Your task to perform on an android device: toggle translation in the chrome app Image 0: 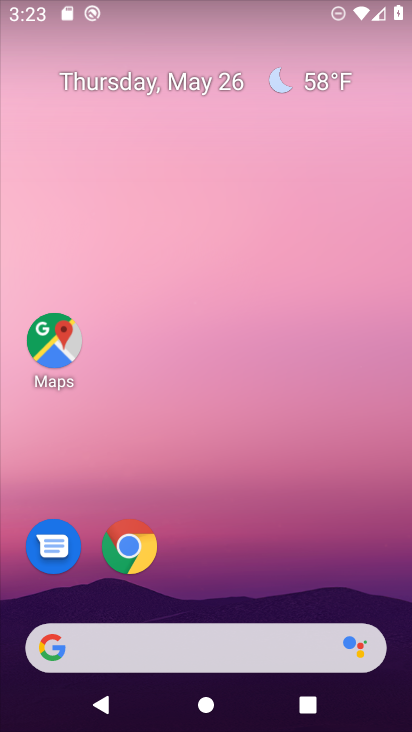
Step 0: press home button
Your task to perform on an android device: toggle translation in the chrome app Image 1: 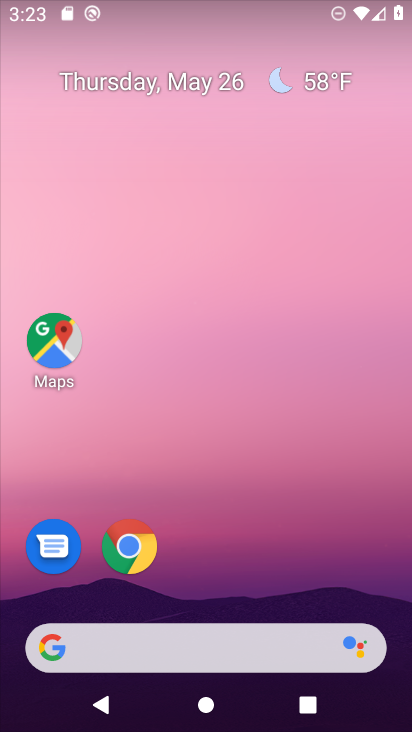
Step 1: click (129, 540)
Your task to perform on an android device: toggle translation in the chrome app Image 2: 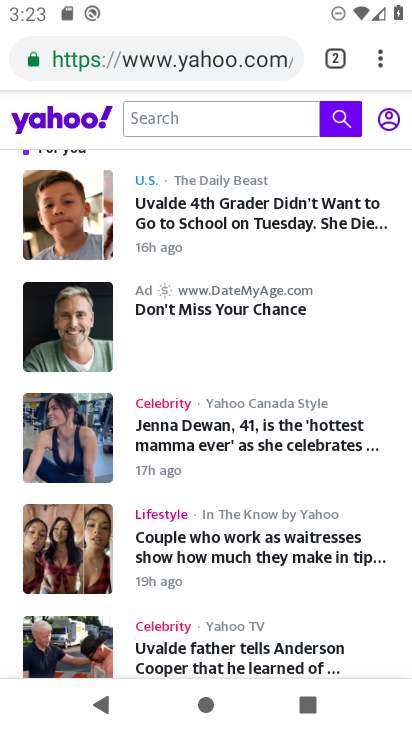
Step 2: click (385, 60)
Your task to perform on an android device: toggle translation in the chrome app Image 3: 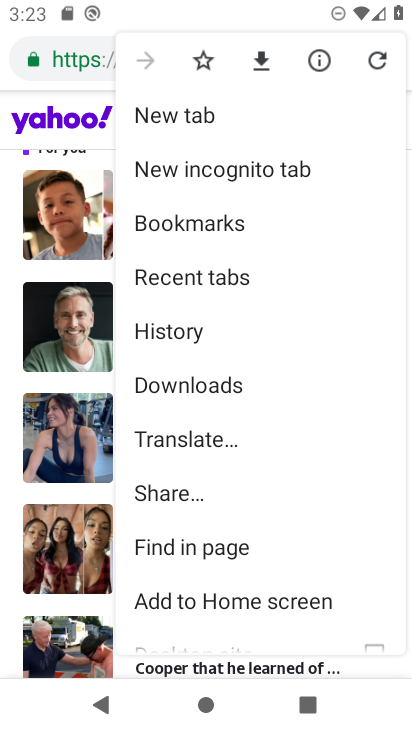
Step 3: drag from (267, 573) to (339, 147)
Your task to perform on an android device: toggle translation in the chrome app Image 4: 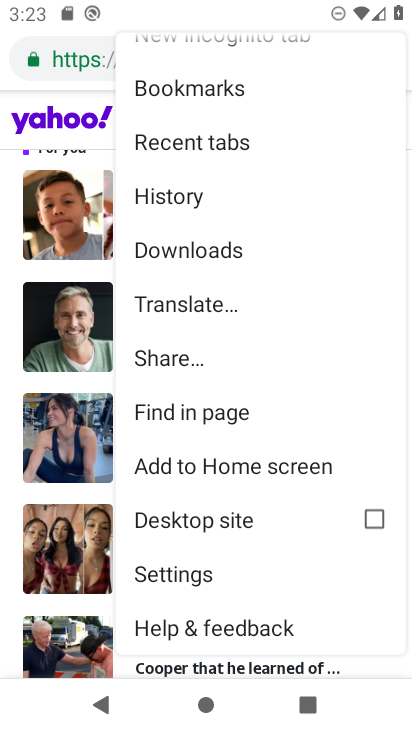
Step 4: click (230, 574)
Your task to perform on an android device: toggle translation in the chrome app Image 5: 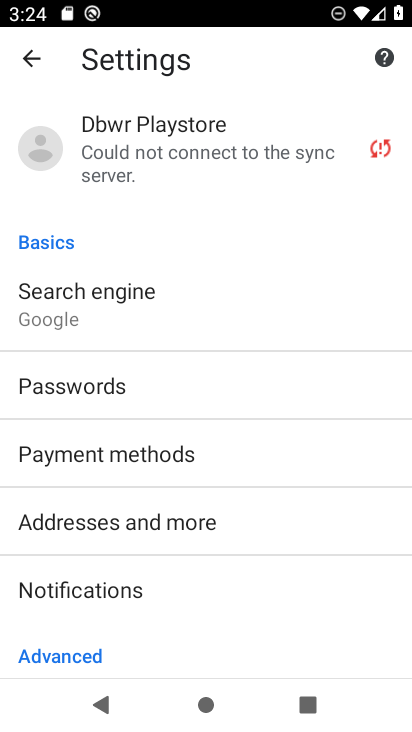
Step 5: drag from (203, 635) to (239, 227)
Your task to perform on an android device: toggle translation in the chrome app Image 6: 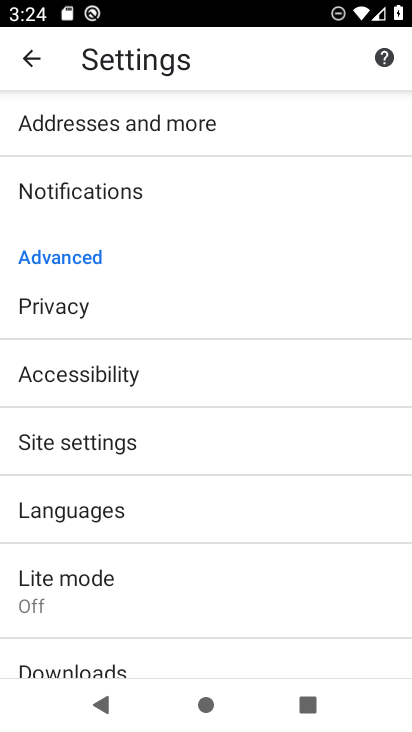
Step 6: click (143, 511)
Your task to perform on an android device: toggle translation in the chrome app Image 7: 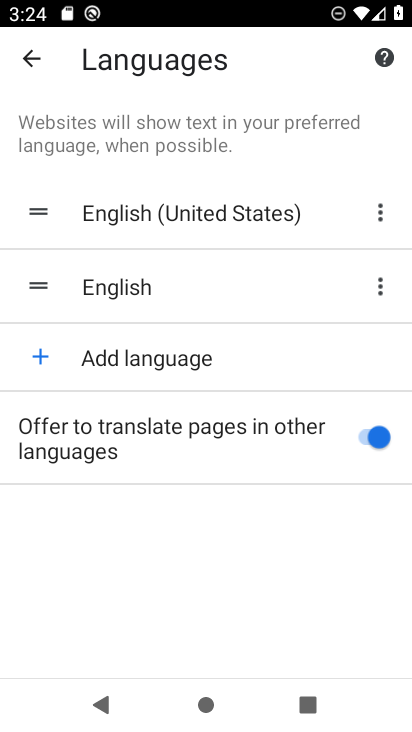
Step 7: click (372, 431)
Your task to perform on an android device: toggle translation in the chrome app Image 8: 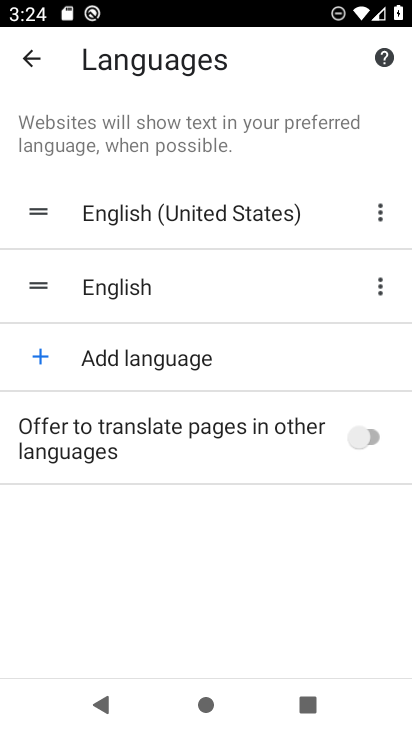
Step 8: task complete